Your task to perform on an android device: Go to Yahoo.com Image 0: 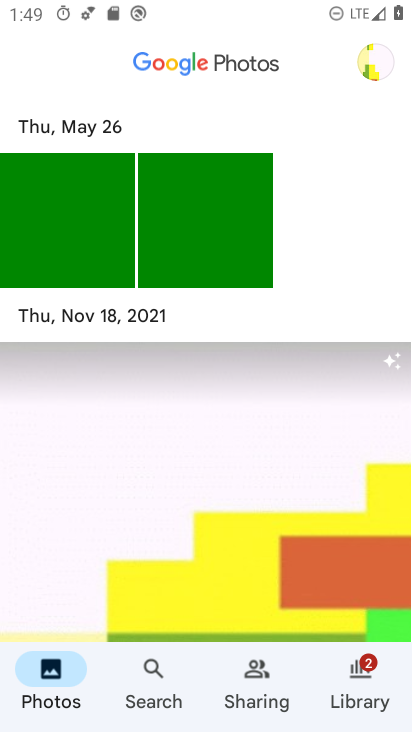
Step 0: press home button
Your task to perform on an android device: Go to Yahoo.com Image 1: 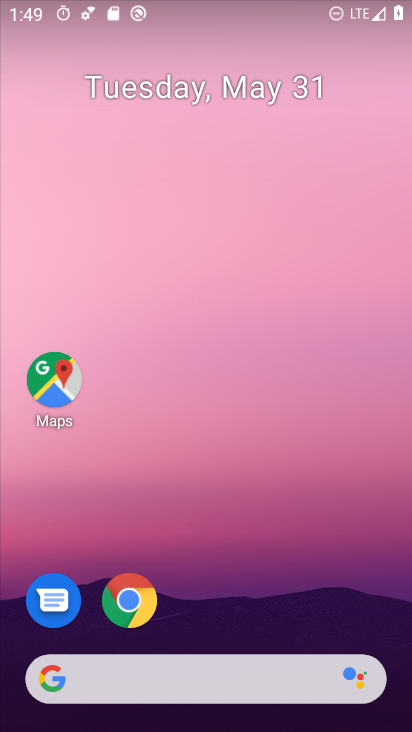
Step 1: click (127, 606)
Your task to perform on an android device: Go to Yahoo.com Image 2: 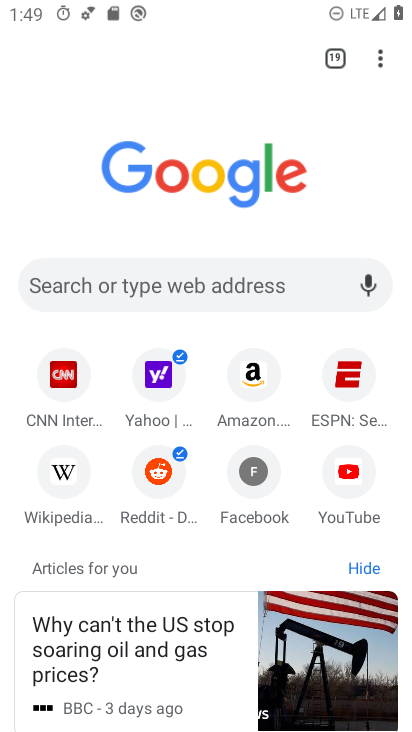
Step 2: click (154, 375)
Your task to perform on an android device: Go to Yahoo.com Image 3: 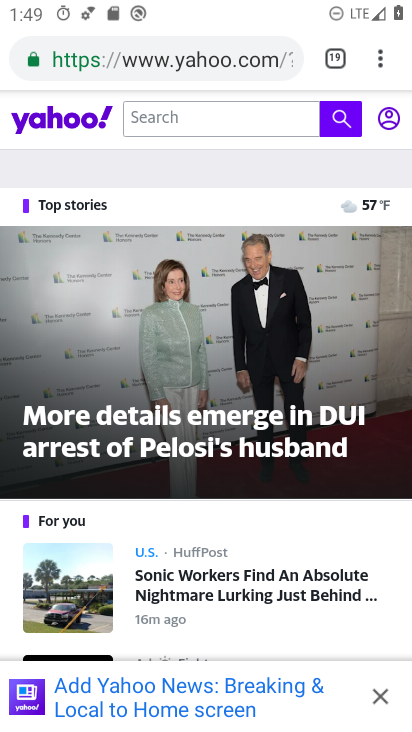
Step 3: task complete